Your task to perform on an android device: find photos in the google photos app Image 0: 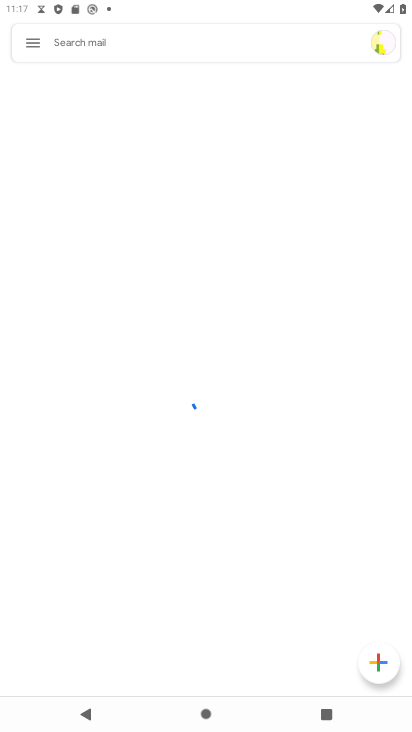
Step 0: press home button
Your task to perform on an android device: find photos in the google photos app Image 1: 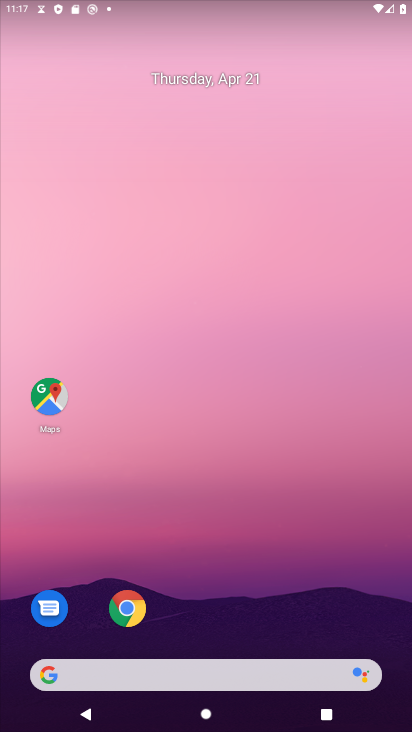
Step 1: drag from (179, 543) to (146, 128)
Your task to perform on an android device: find photos in the google photos app Image 2: 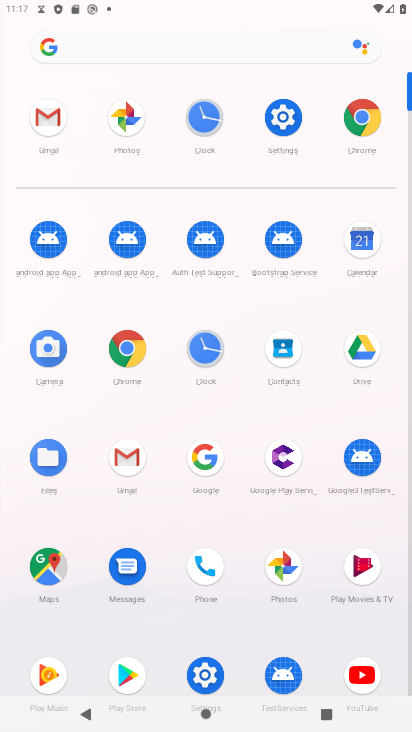
Step 2: click (130, 113)
Your task to perform on an android device: find photos in the google photos app Image 3: 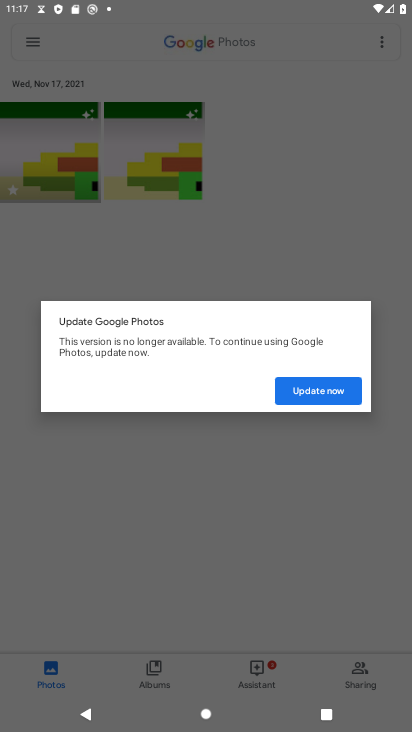
Step 3: task complete